Your task to perform on an android device: Go to battery settings Image 0: 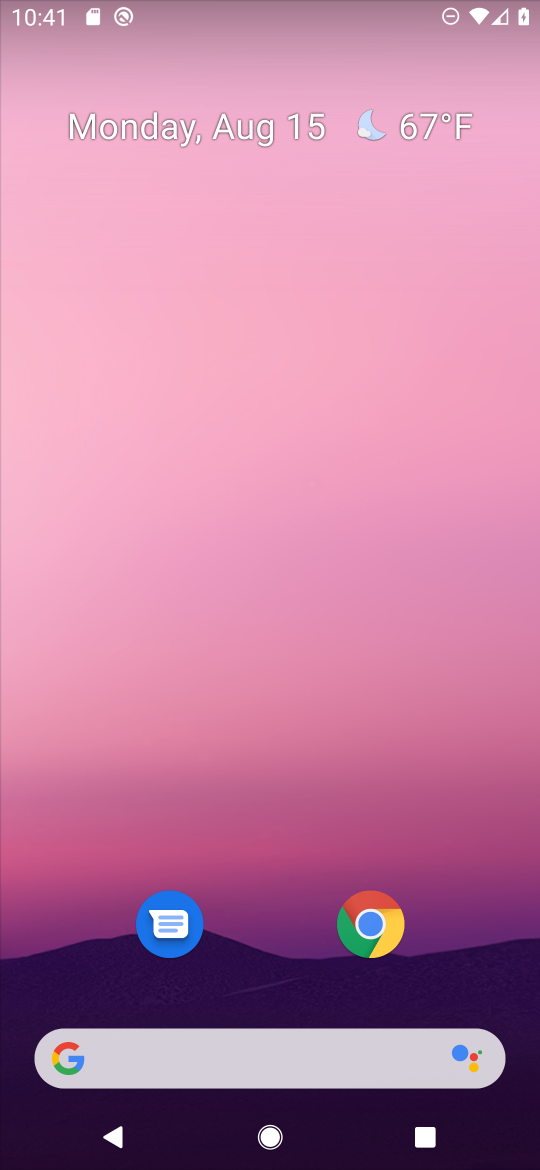
Step 0: drag from (493, 980) to (478, 239)
Your task to perform on an android device: Go to battery settings Image 1: 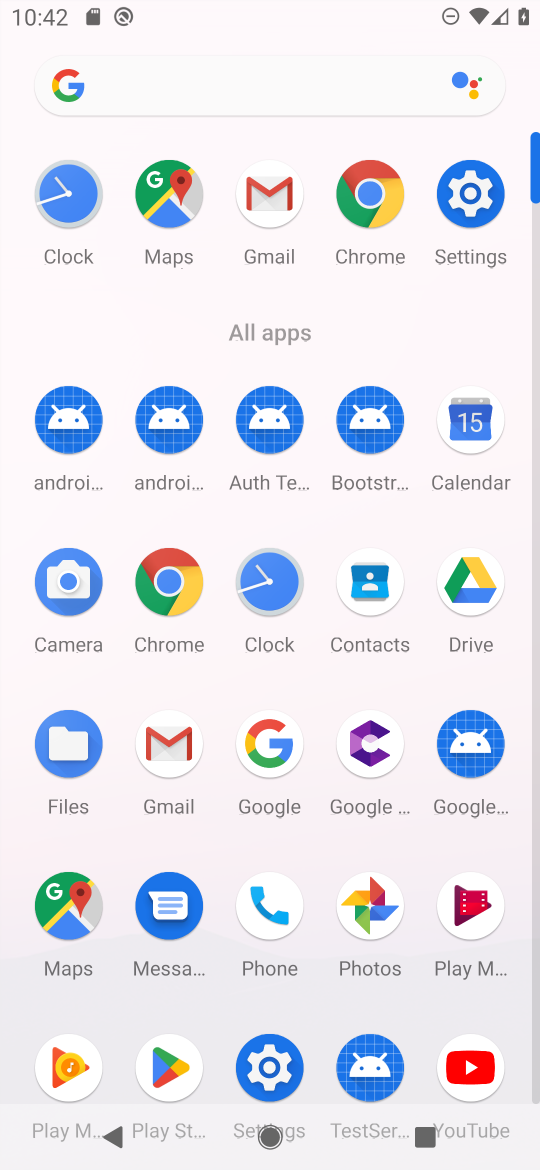
Step 1: click (271, 1069)
Your task to perform on an android device: Go to battery settings Image 2: 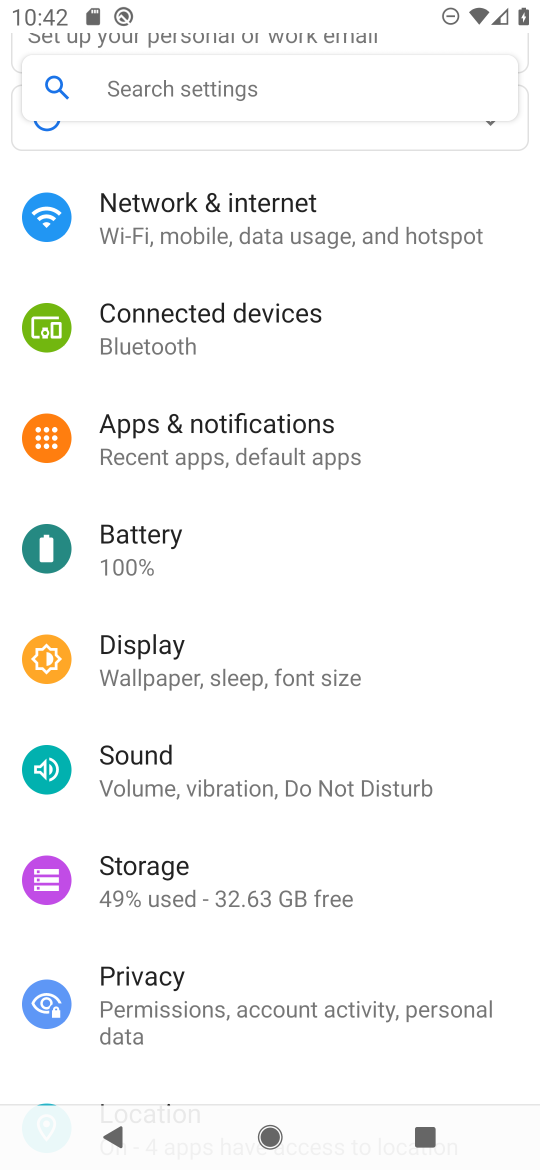
Step 2: click (128, 542)
Your task to perform on an android device: Go to battery settings Image 3: 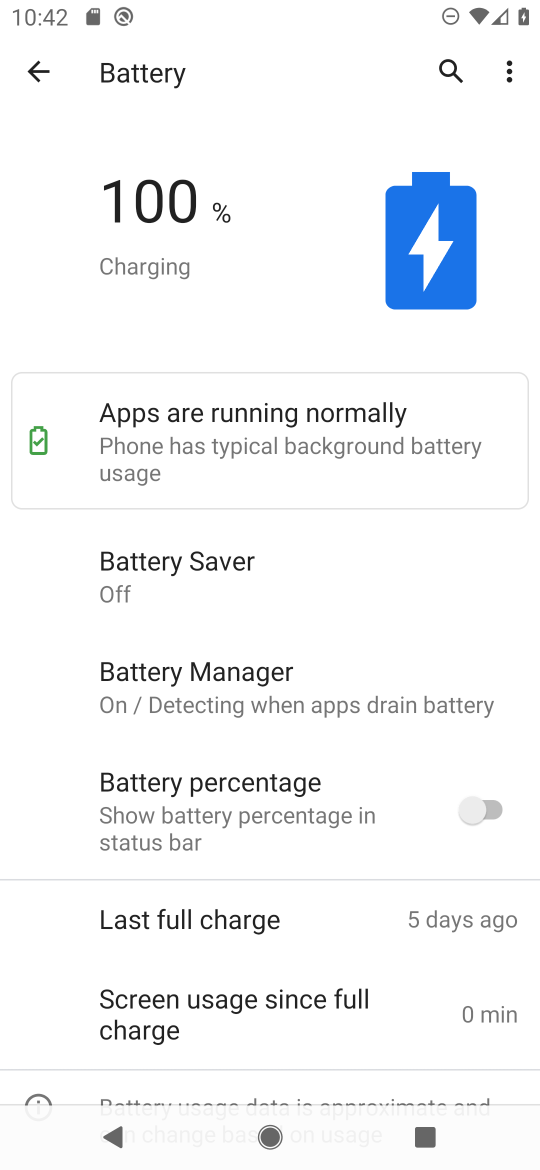
Step 3: task complete